Your task to perform on an android device: visit the assistant section in the google photos Image 0: 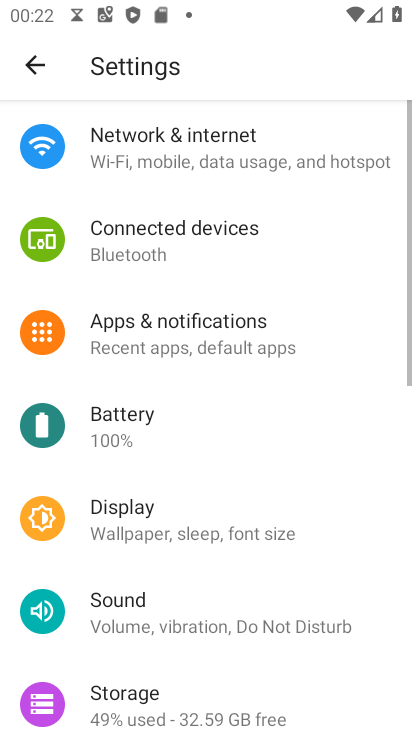
Step 0: press home button
Your task to perform on an android device: visit the assistant section in the google photos Image 1: 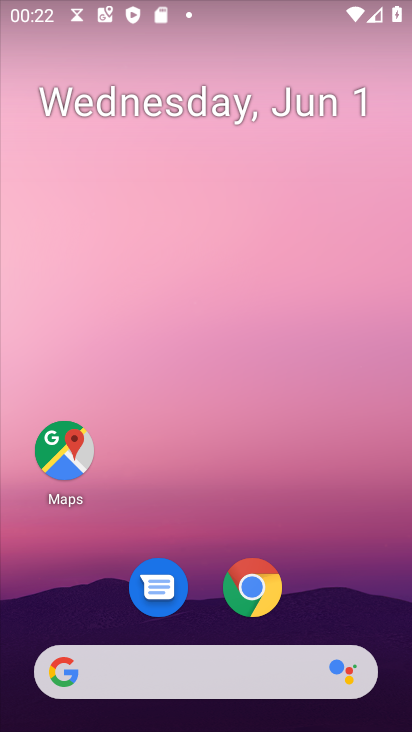
Step 1: drag from (327, 562) to (345, 9)
Your task to perform on an android device: visit the assistant section in the google photos Image 2: 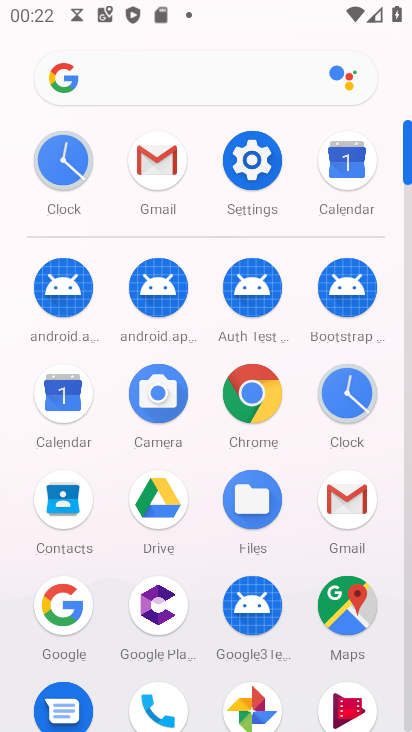
Step 2: click (250, 702)
Your task to perform on an android device: visit the assistant section in the google photos Image 3: 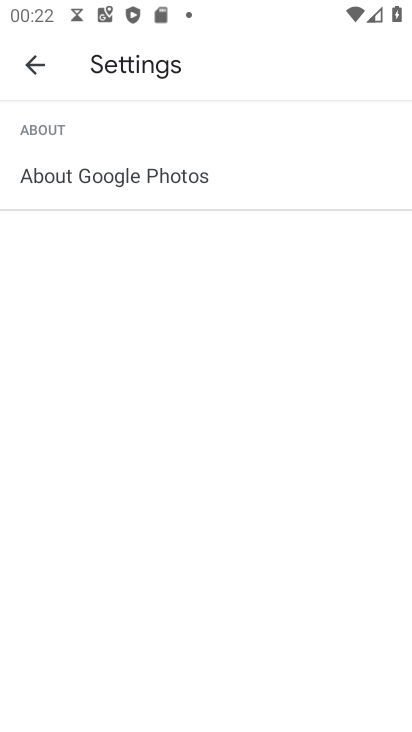
Step 3: click (34, 69)
Your task to perform on an android device: visit the assistant section in the google photos Image 4: 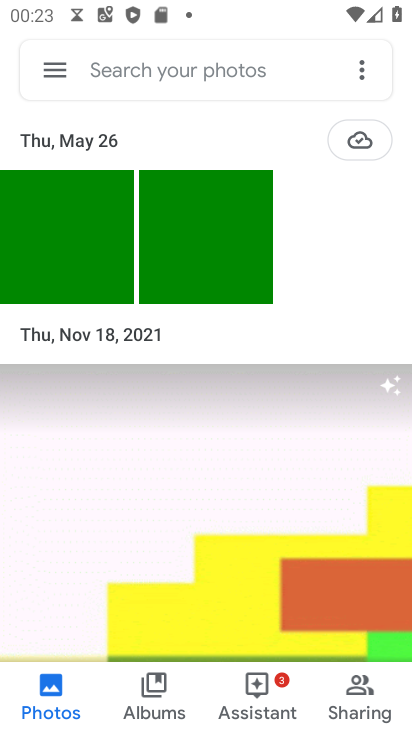
Step 4: click (254, 687)
Your task to perform on an android device: visit the assistant section in the google photos Image 5: 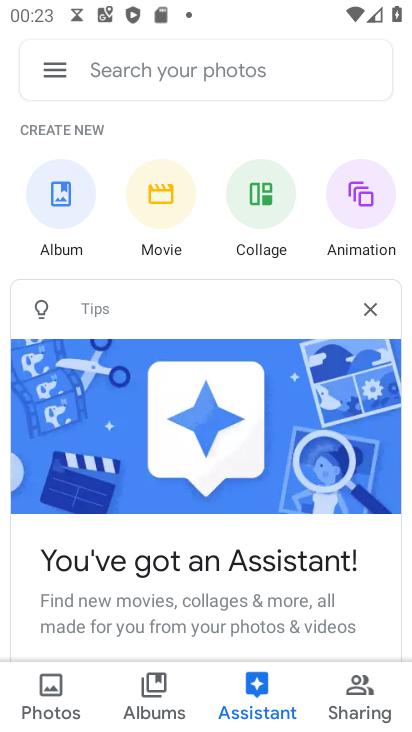
Step 5: task complete